Your task to perform on an android device: turn off improve location accuracy Image 0: 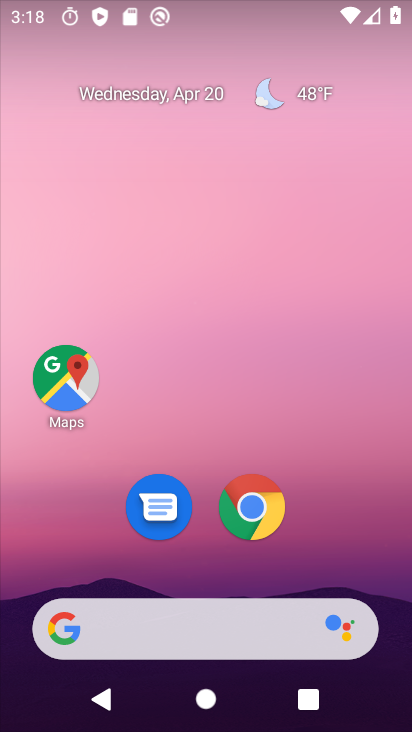
Step 0: drag from (208, 633) to (237, 35)
Your task to perform on an android device: turn off improve location accuracy Image 1: 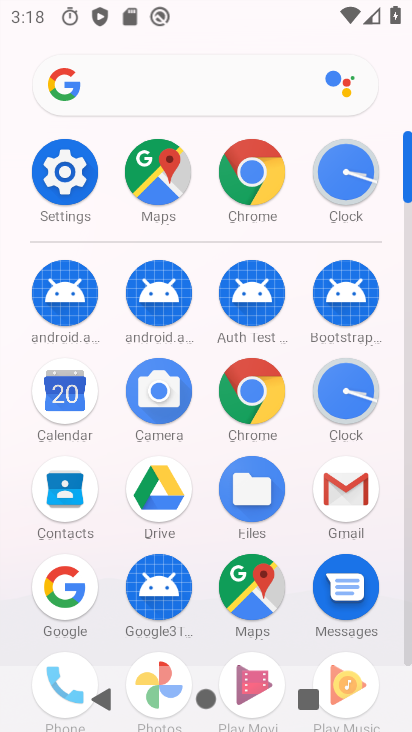
Step 1: click (59, 166)
Your task to perform on an android device: turn off improve location accuracy Image 2: 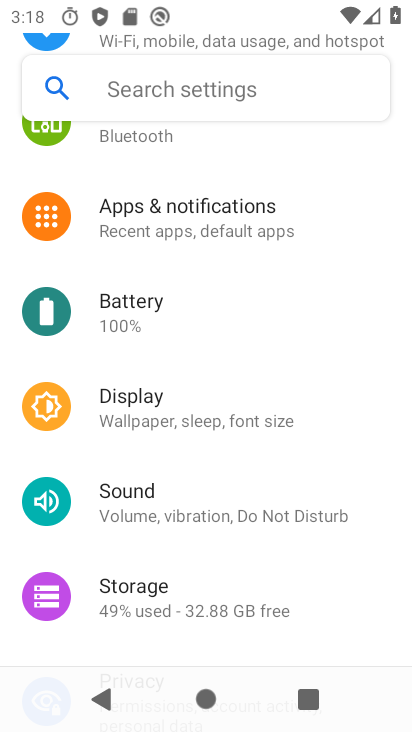
Step 2: drag from (187, 612) to (82, 98)
Your task to perform on an android device: turn off improve location accuracy Image 3: 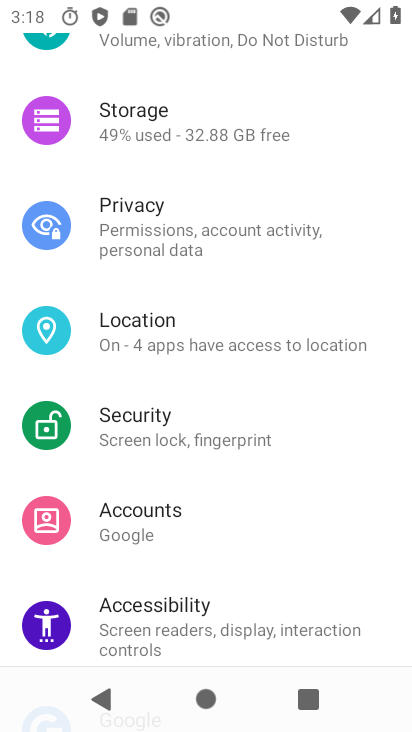
Step 3: click (140, 336)
Your task to perform on an android device: turn off improve location accuracy Image 4: 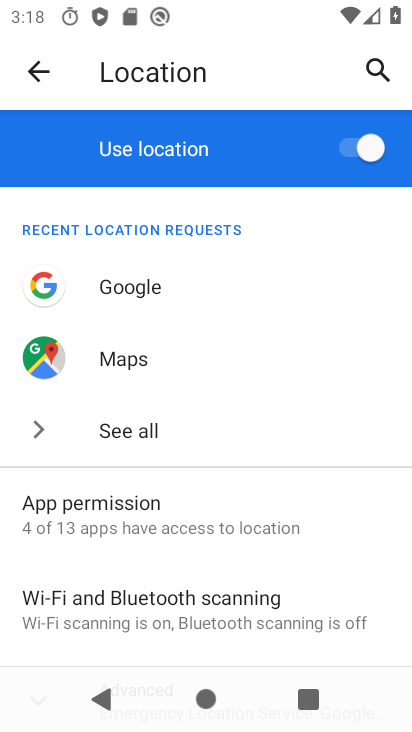
Step 4: drag from (188, 578) to (121, 176)
Your task to perform on an android device: turn off improve location accuracy Image 5: 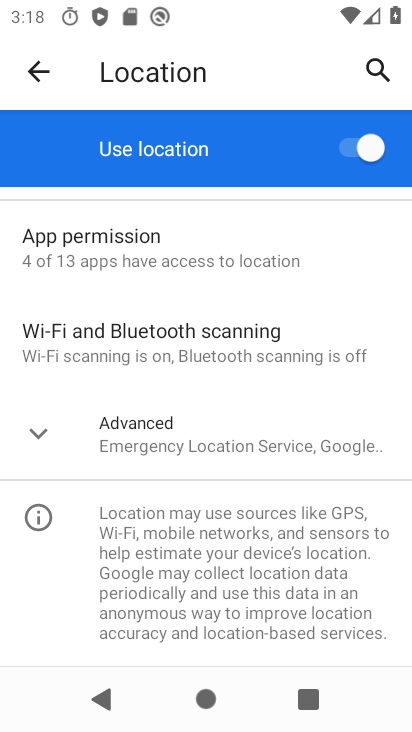
Step 5: click (121, 457)
Your task to perform on an android device: turn off improve location accuracy Image 6: 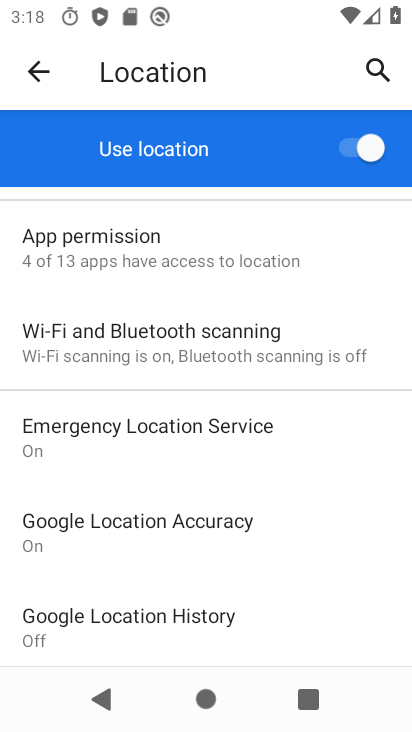
Step 6: click (161, 524)
Your task to perform on an android device: turn off improve location accuracy Image 7: 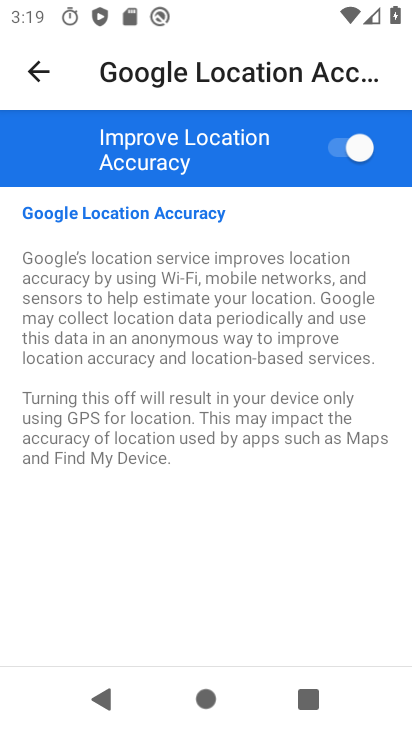
Step 7: click (340, 158)
Your task to perform on an android device: turn off improve location accuracy Image 8: 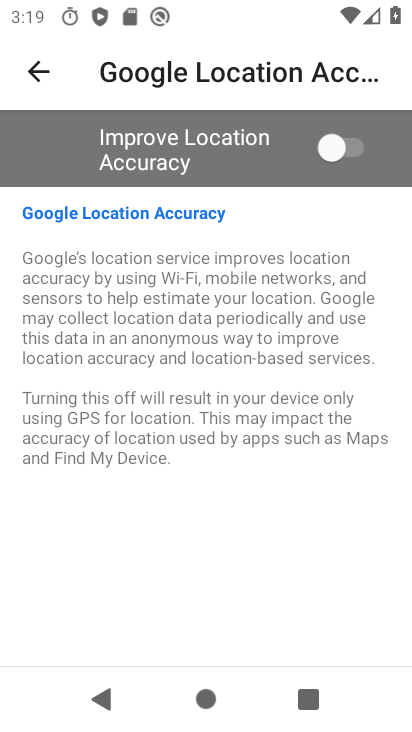
Step 8: task complete